Your task to perform on an android device: toggle notification dots Image 0: 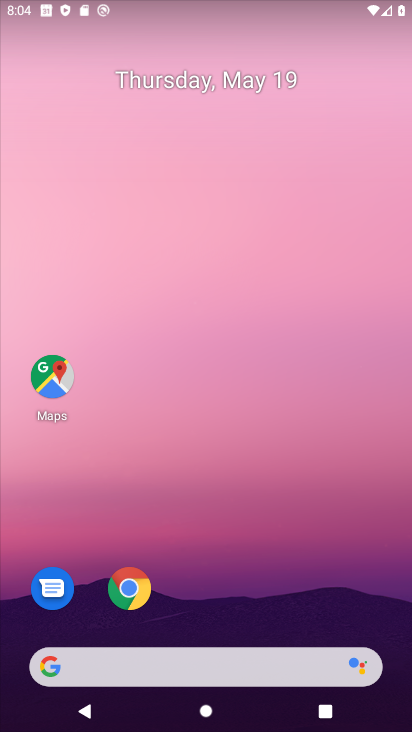
Step 0: drag from (243, 724) to (247, 268)
Your task to perform on an android device: toggle notification dots Image 1: 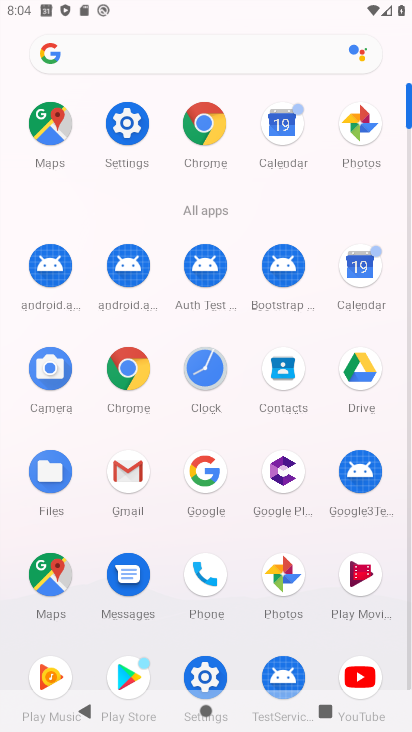
Step 1: click (116, 125)
Your task to perform on an android device: toggle notification dots Image 2: 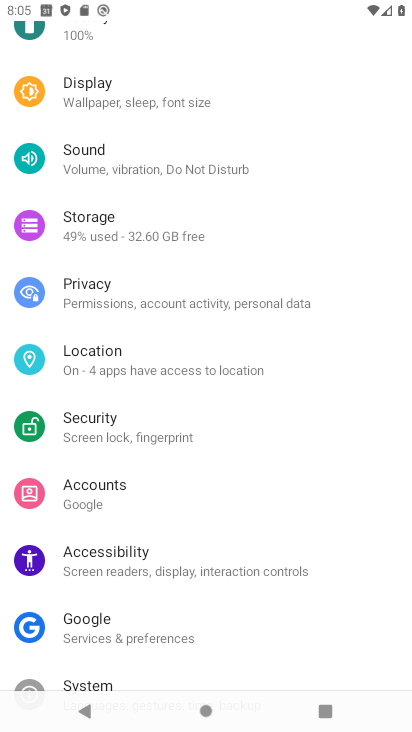
Step 2: drag from (186, 158) to (184, 361)
Your task to perform on an android device: toggle notification dots Image 3: 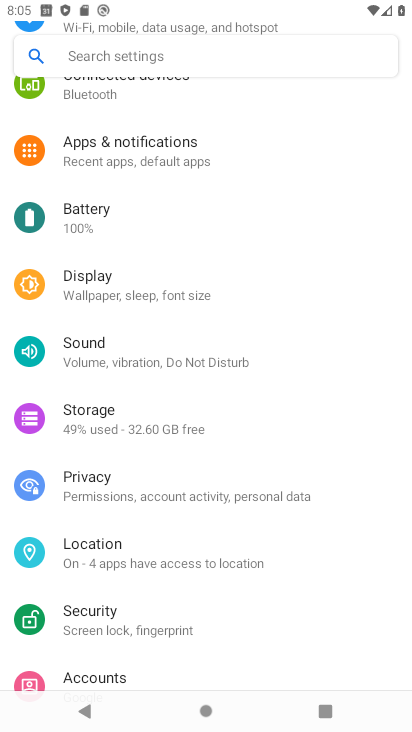
Step 3: click (189, 158)
Your task to perform on an android device: toggle notification dots Image 4: 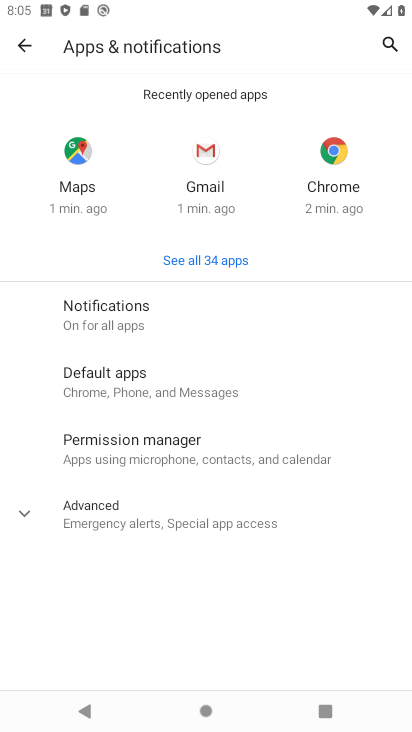
Step 4: click (103, 312)
Your task to perform on an android device: toggle notification dots Image 5: 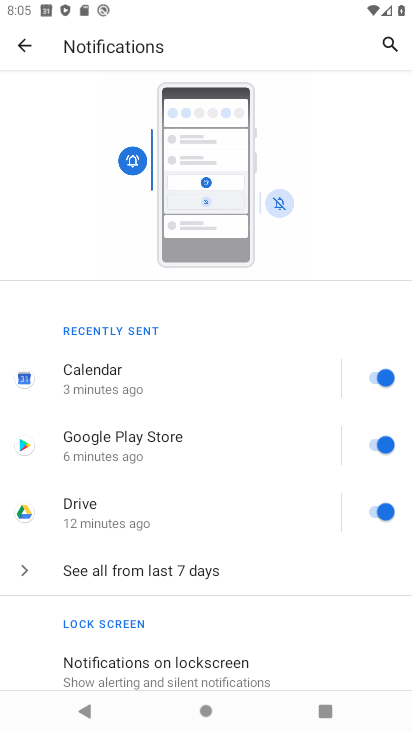
Step 5: drag from (142, 682) to (175, 332)
Your task to perform on an android device: toggle notification dots Image 6: 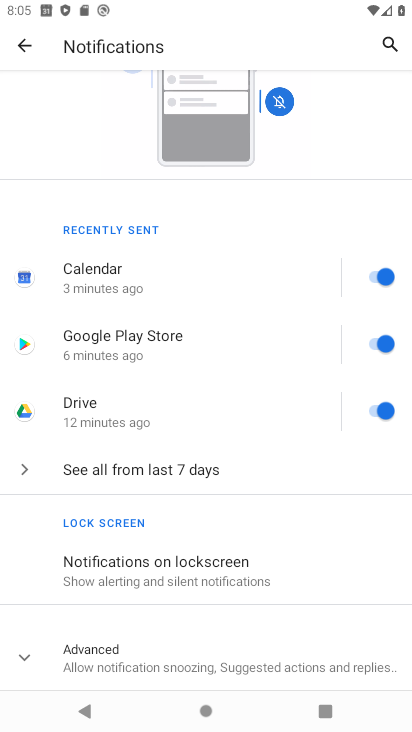
Step 6: click (165, 660)
Your task to perform on an android device: toggle notification dots Image 7: 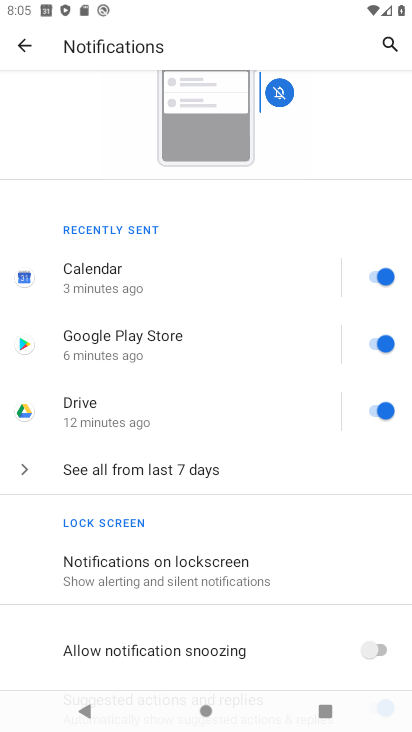
Step 7: drag from (211, 644) to (254, 354)
Your task to perform on an android device: toggle notification dots Image 8: 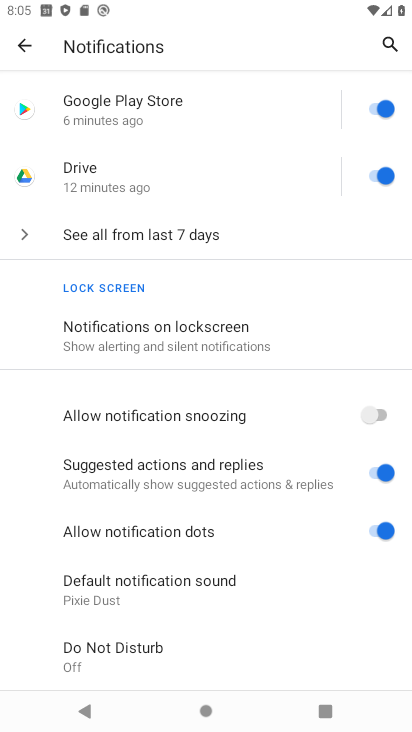
Step 8: click (367, 528)
Your task to perform on an android device: toggle notification dots Image 9: 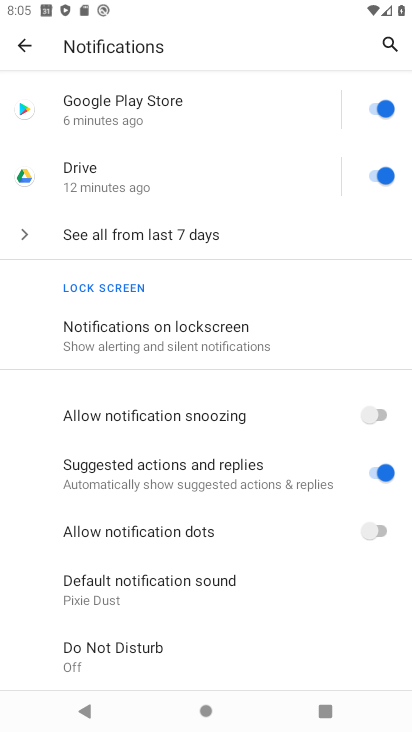
Step 9: task complete